Your task to perform on an android device: open a bookmark in the chrome app Image 0: 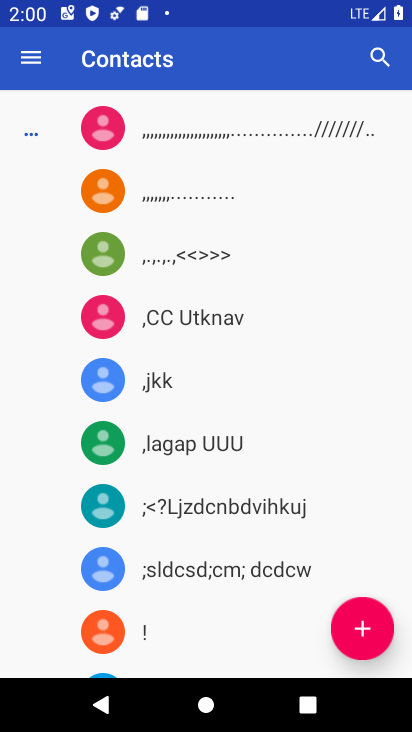
Step 0: press home button
Your task to perform on an android device: open a bookmark in the chrome app Image 1: 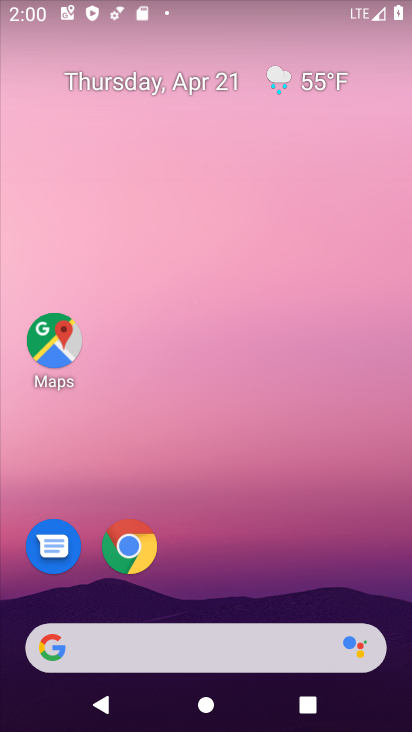
Step 1: click (128, 554)
Your task to perform on an android device: open a bookmark in the chrome app Image 2: 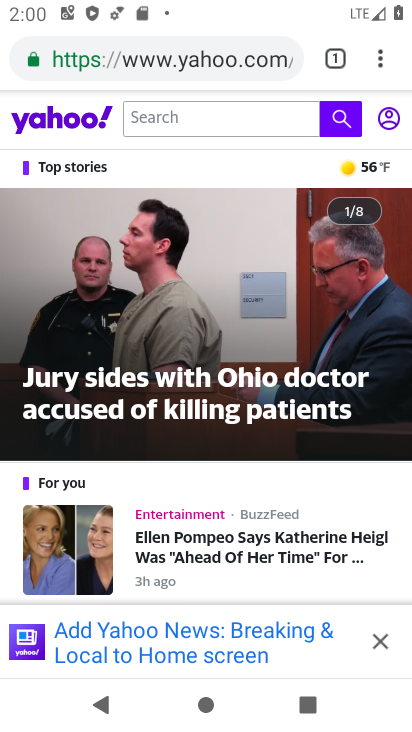
Step 2: click (385, 68)
Your task to perform on an android device: open a bookmark in the chrome app Image 3: 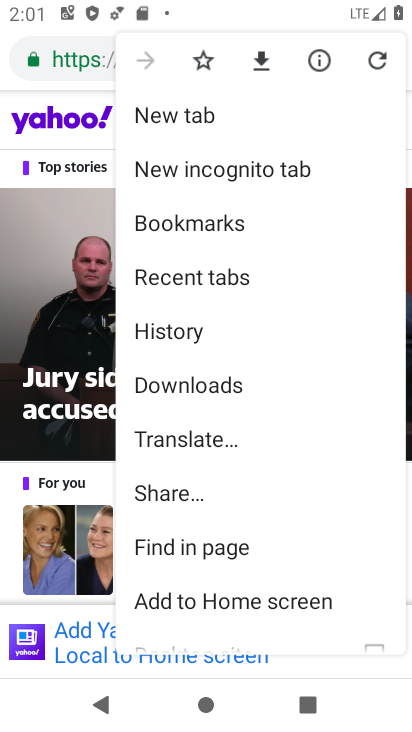
Step 3: click (223, 238)
Your task to perform on an android device: open a bookmark in the chrome app Image 4: 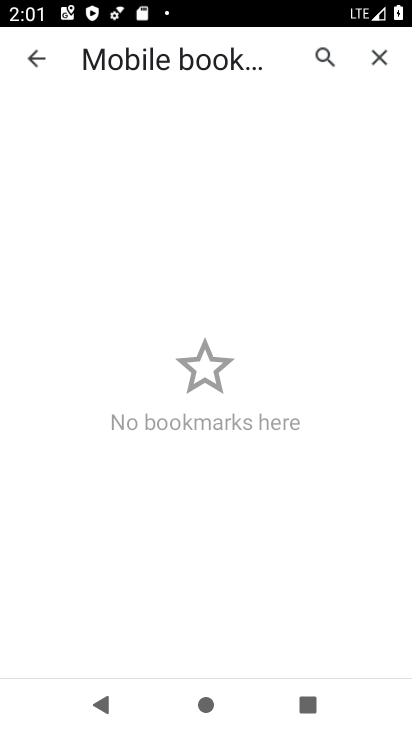
Step 4: task complete